Your task to perform on an android device: Go to internet settings Image 0: 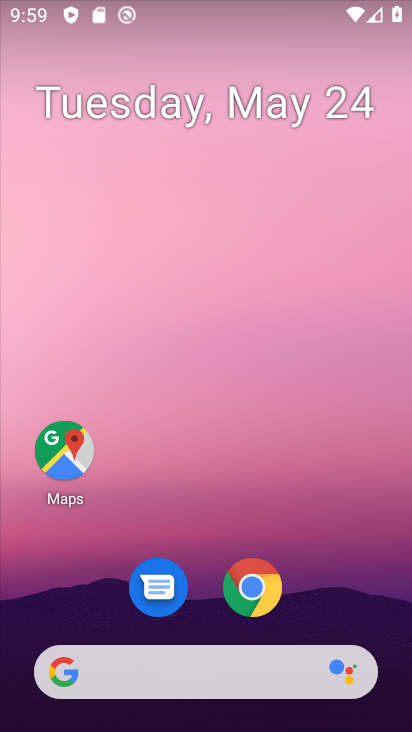
Step 0: press home button
Your task to perform on an android device: Go to internet settings Image 1: 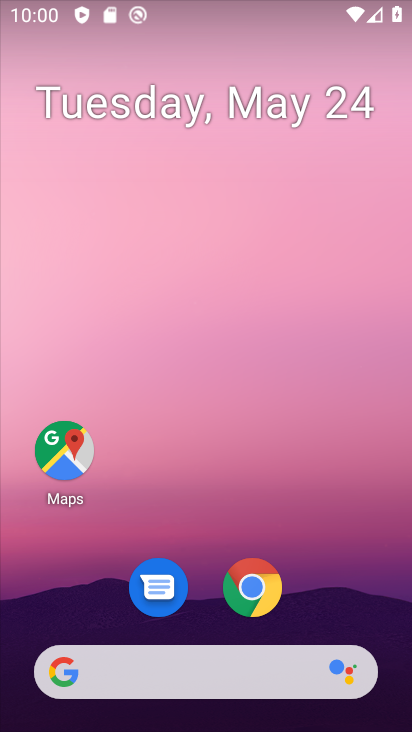
Step 1: drag from (213, 518) to (91, 56)
Your task to perform on an android device: Go to internet settings Image 2: 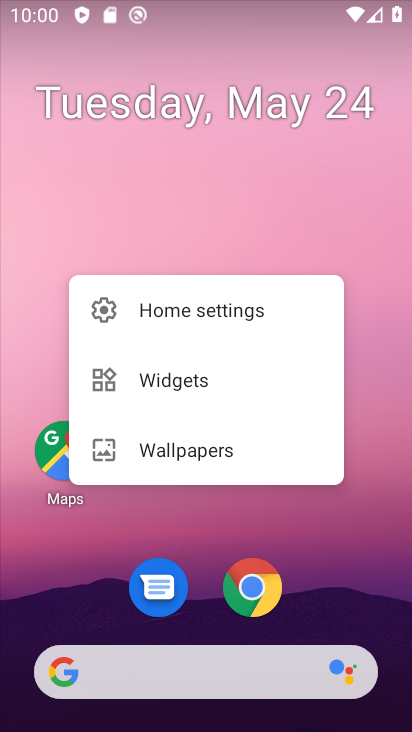
Step 2: click (82, 155)
Your task to perform on an android device: Go to internet settings Image 3: 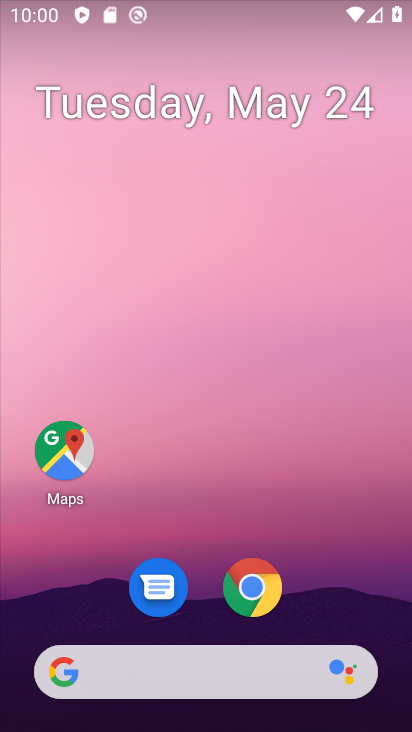
Step 3: drag from (350, 572) to (247, 127)
Your task to perform on an android device: Go to internet settings Image 4: 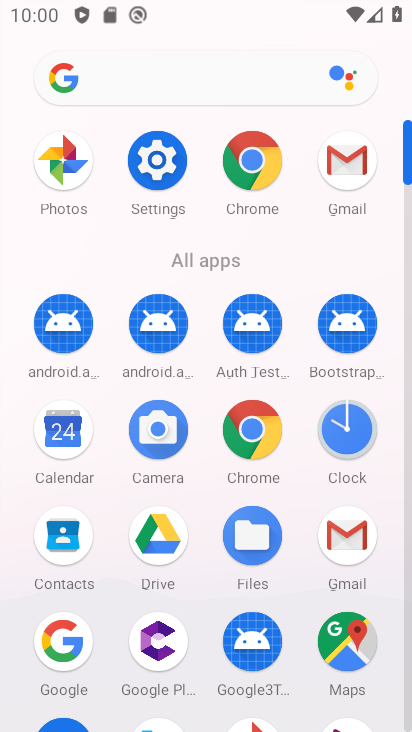
Step 4: click (141, 161)
Your task to perform on an android device: Go to internet settings Image 5: 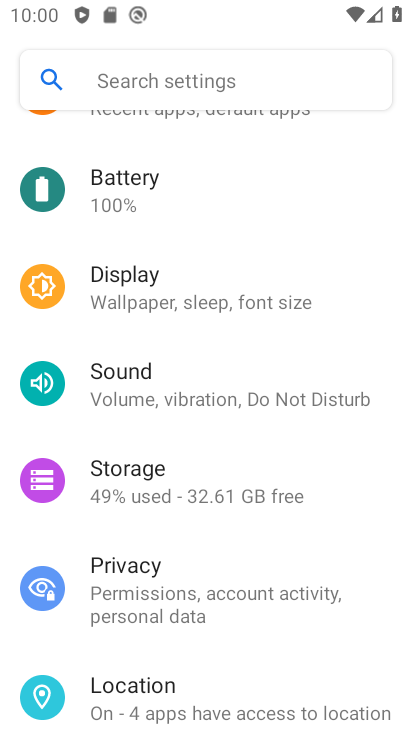
Step 5: drag from (141, 161) to (192, 722)
Your task to perform on an android device: Go to internet settings Image 6: 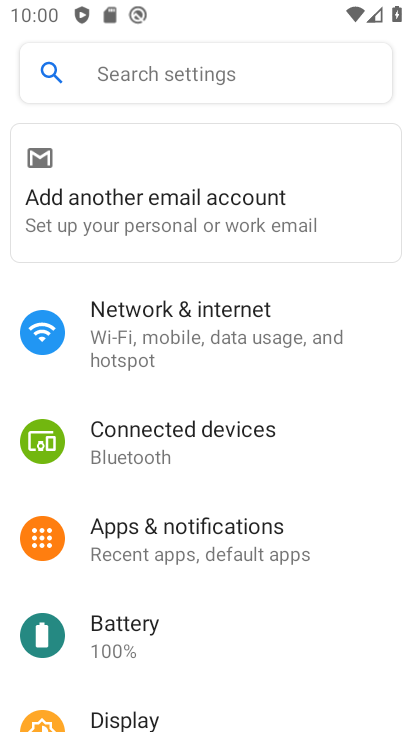
Step 6: click (217, 331)
Your task to perform on an android device: Go to internet settings Image 7: 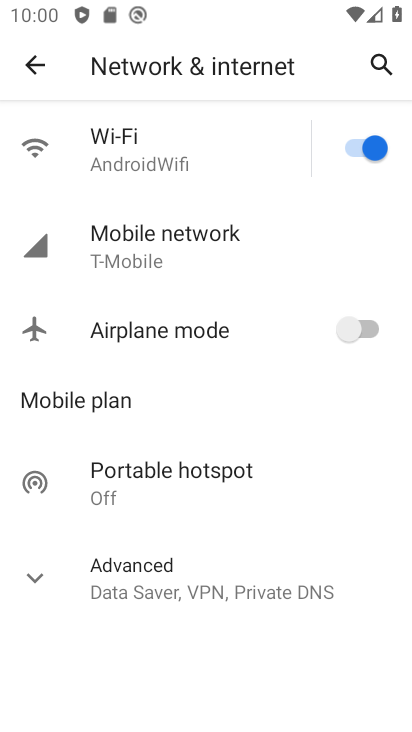
Step 7: task complete